Your task to perform on an android device: What's the price of the EGO 14-in 56-Volt Brushless Cordless Chainsaw? Image 0: 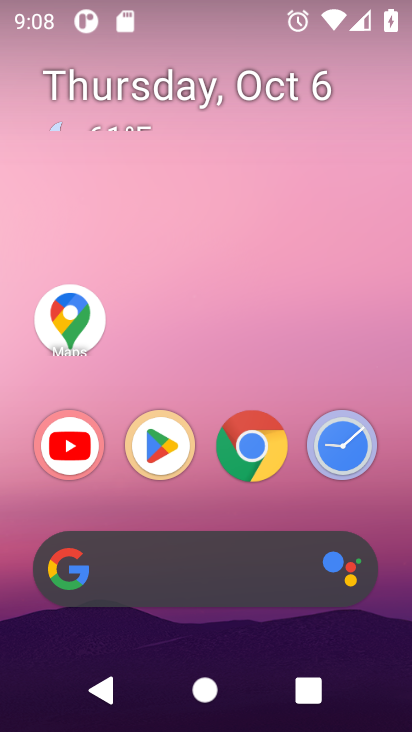
Step 0: click (166, 546)
Your task to perform on an android device: What's the price of the EGO 14-in 56-Volt Brushless Cordless Chainsaw? Image 1: 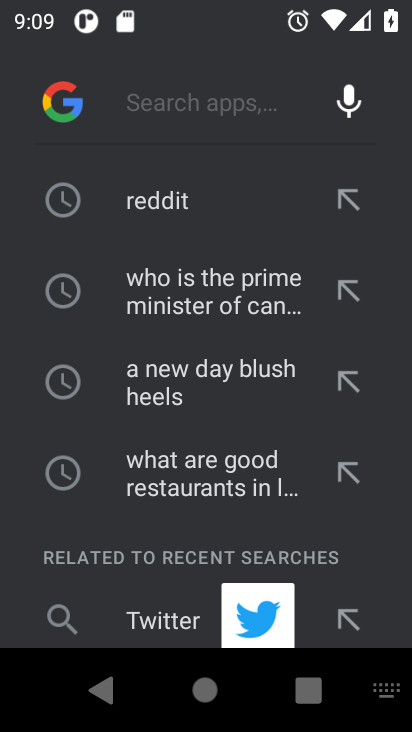
Step 1: type "What's the price of the EGO 14-in 56-Volt Brushless Cordless Chainsaw?"
Your task to perform on an android device: What's the price of the EGO 14-in 56-Volt Brushless Cordless Chainsaw? Image 2: 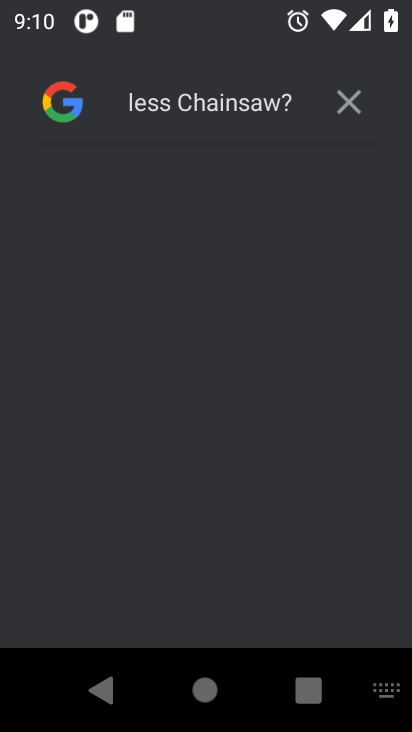
Step 2: task complete